Your task to perform on an android device: change text size in settings app Image 0: 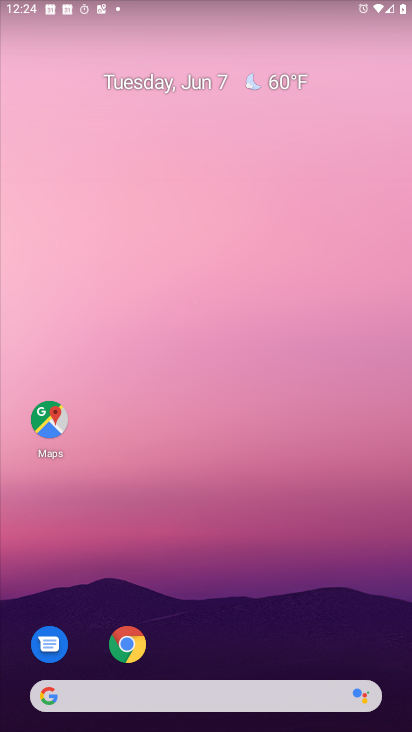
Step 0: drag from (136, 727) to (273, 0)
Your task to perform on an android device: change text size in settings app Image 1: 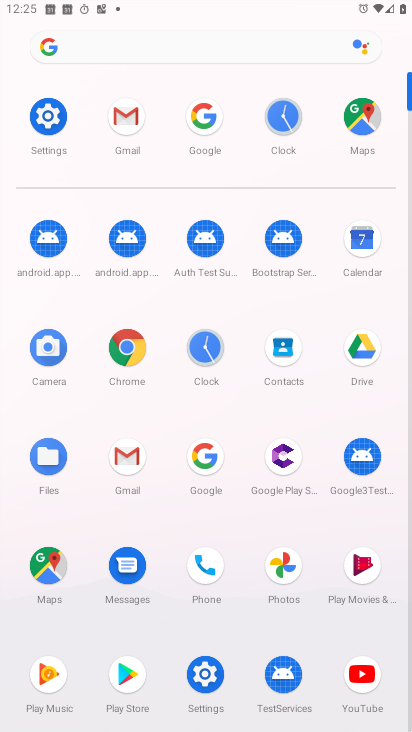
Step 1: click (210, 675)
Your task to perform on an android device: change text size in settings app Image 2: 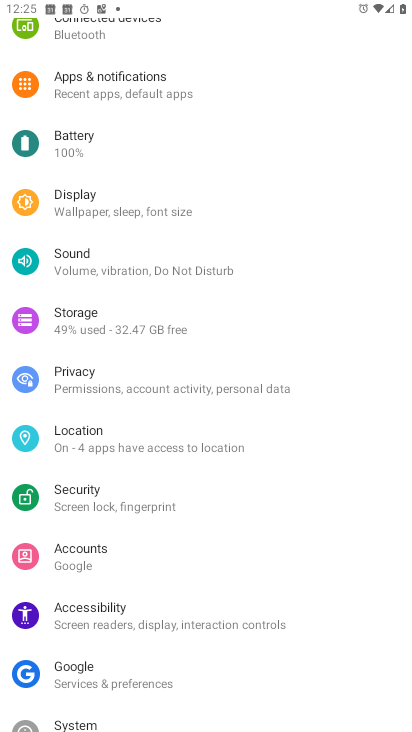
Step 2: click (170, 214)
Your task to perform on an android device: change text size in settings app Image 3: 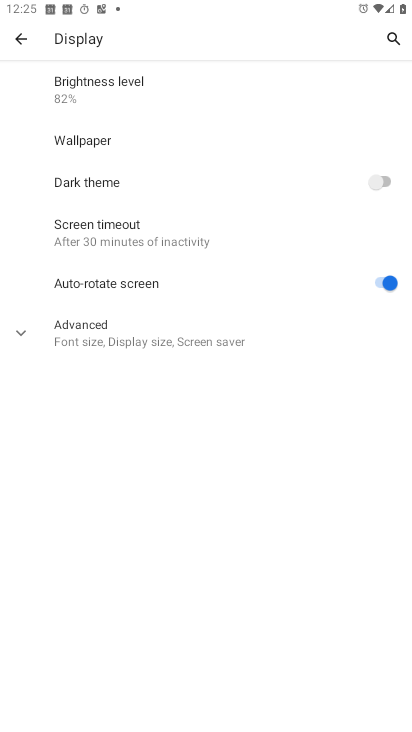
Step 3: click (104, 345)
Your task to perform on an android device: change text size in settings app Image 4: 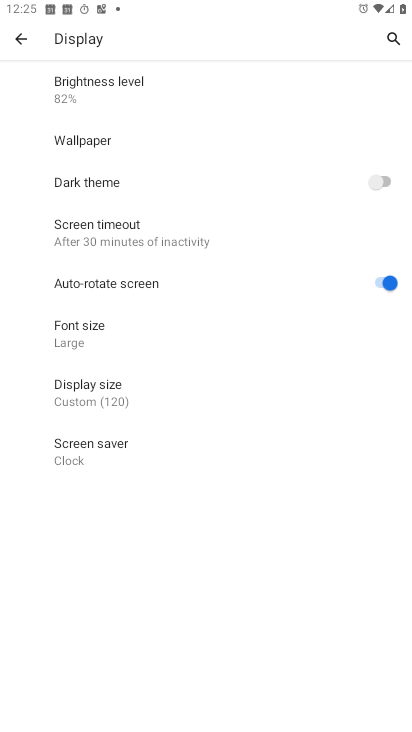
Step 4: click (91, 340)
Your task to perform on an android device: change text size in settings app Image 5: 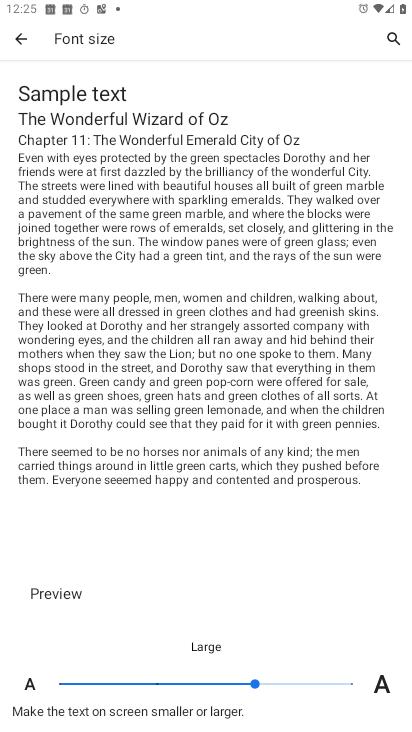
Step 5: click (151, 683)
Your task to perform on an android device: change text size in settings app Image 6: 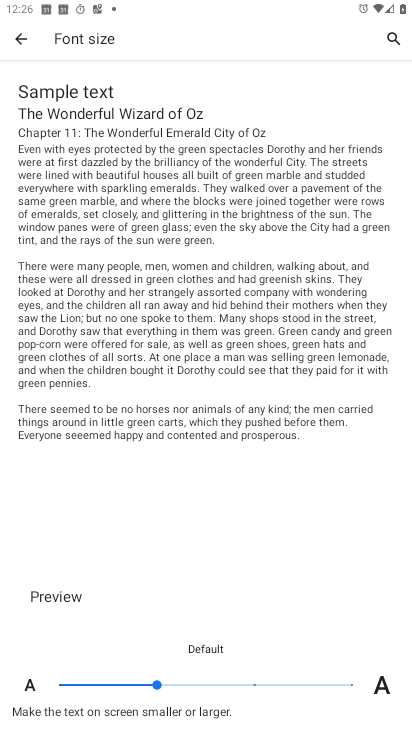
Step 6: task complete